Your task to perform on an android device: Show me popular games on the Play Store Image 0: 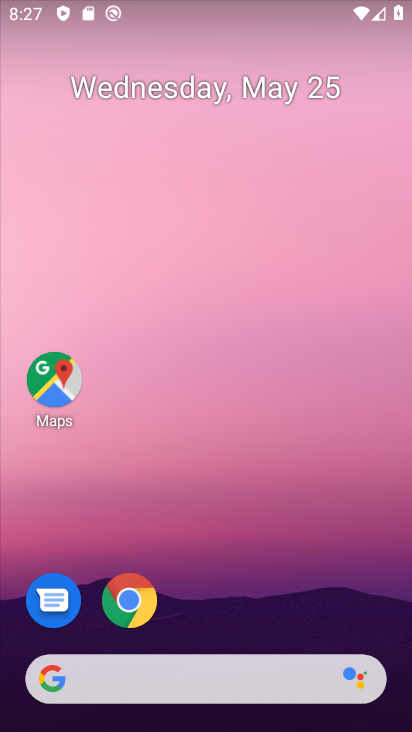
Step 0: drag from (236, 624) to (237, 48)
Your task to perform on an android device: Show me popular games on the Play Store Image 1: 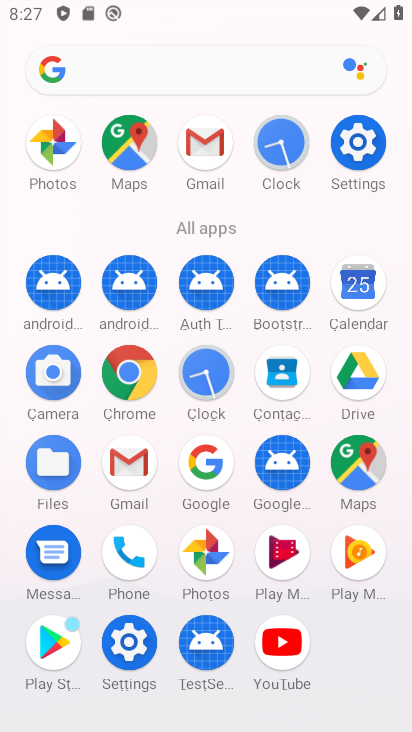
Step 1: click (41, 640)
Your task to perform on an android device: Show me popular games on the Play Store Image 2: 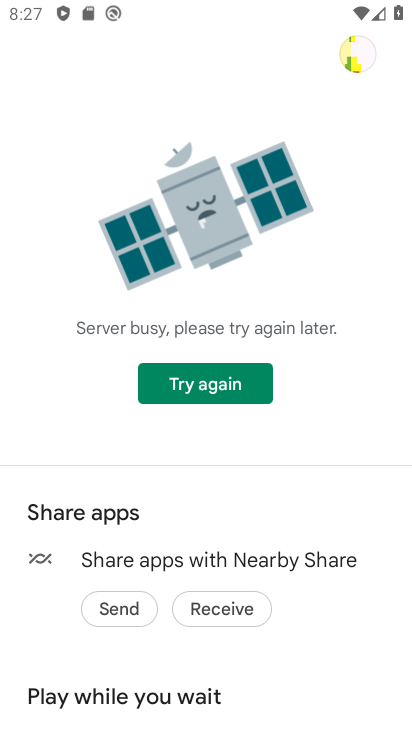
Step 2: click (215, 394)
Your task to perform on an android device: Show me popular games on the Play Store Image 3: 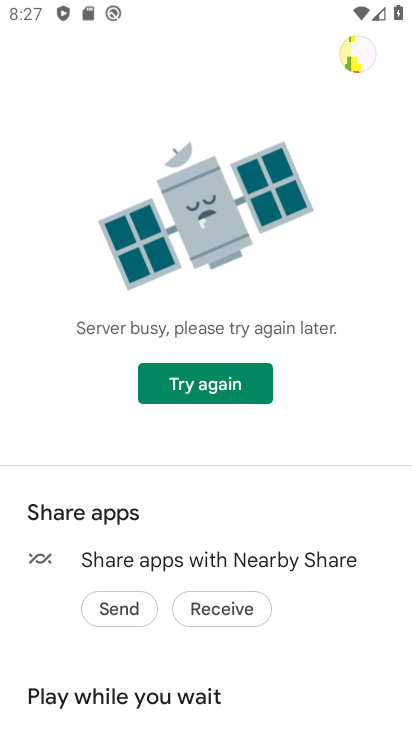
Step 3: click (216, 393)
Your task to perform on an android device: Show me popular games on the Play Store Image 4: 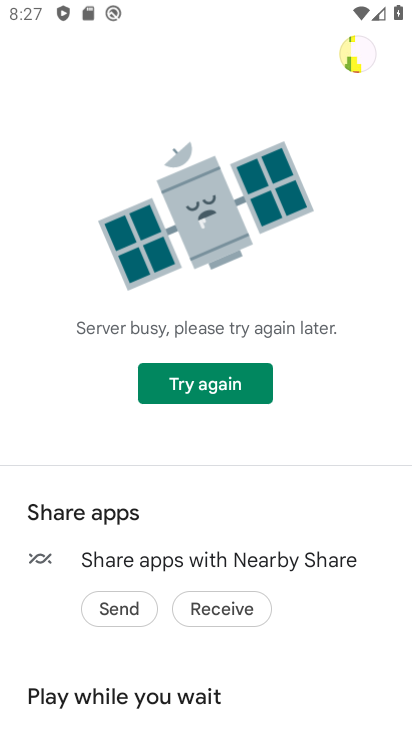
Step 4: task complete